Your task to perform on an android device: Search for "energizer triple a" on bestbuy, select the first entry, and add it to the cart. Image 0: 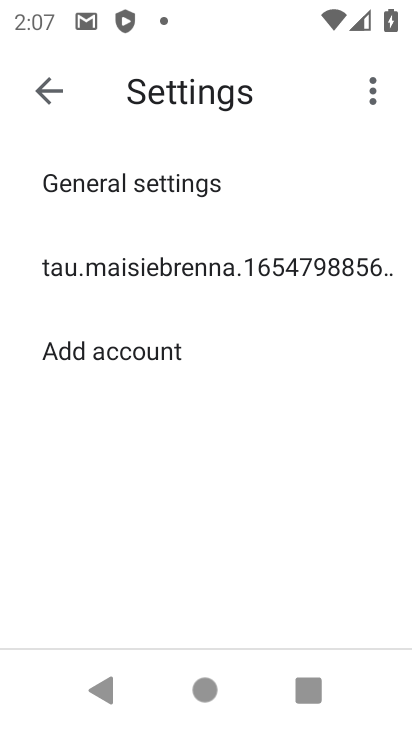
Step 0: press home button
Your task to perform on an android device: Search for "energizer triple a" on bestbuy, select the first entry, and add it to the cart. Image 1: 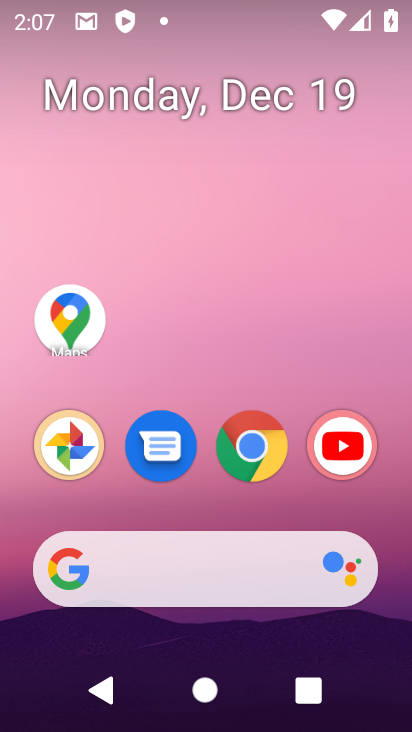
Step 1: click (253, 444)
Your task to perform on an android device: Search for "energizer triple a" on bestbuy, select the first entry, and add it to the cart. Image 2: 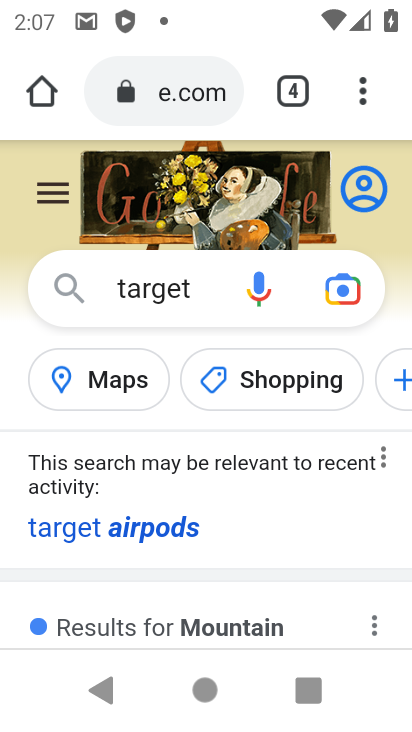
Step 2: click (190, 79)
Your task to perform on an android device: Search for "energizer triple a" on bestbuy, select the first entry, and add it to the cart. Image 3: 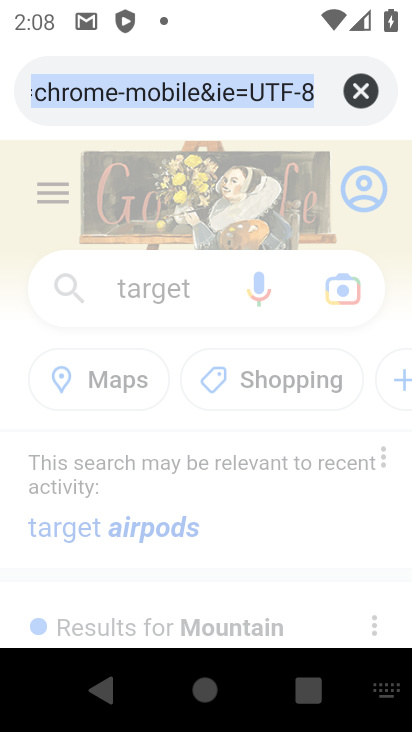
Step 3: task complete